Your task to perform on an android device: Open Youtube and go to the subscriptions tab Image 0: 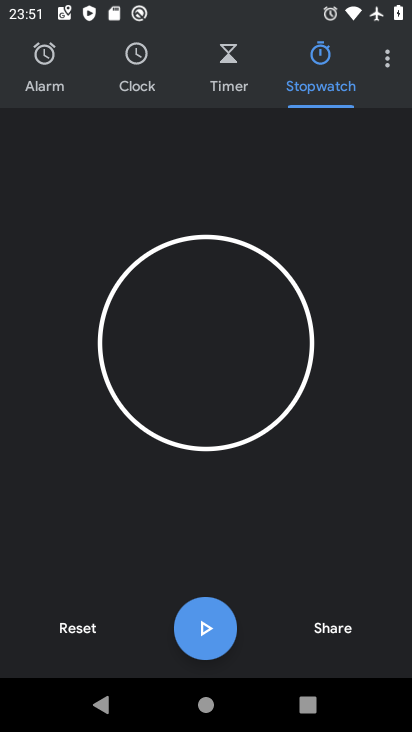
Step 0: press back button
Your task to perform on an android device: Open Youtube and go to the subscriptions tab Image 1: 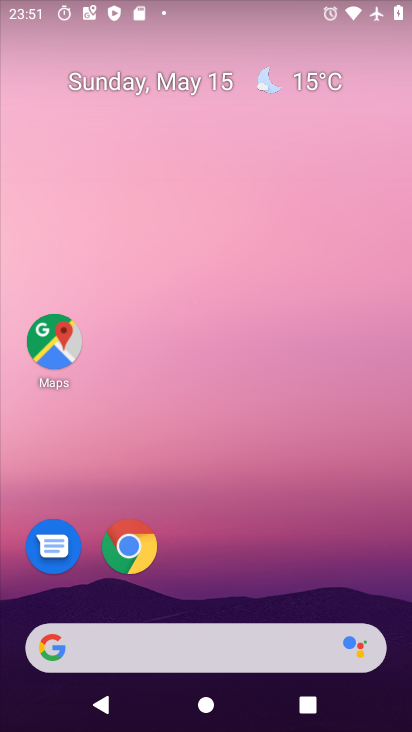
Step 1: drag from (228, 675) to (169, 48)
Your task to perform on an android device: Open Youtube and go to the subscriptions tab Image 2: 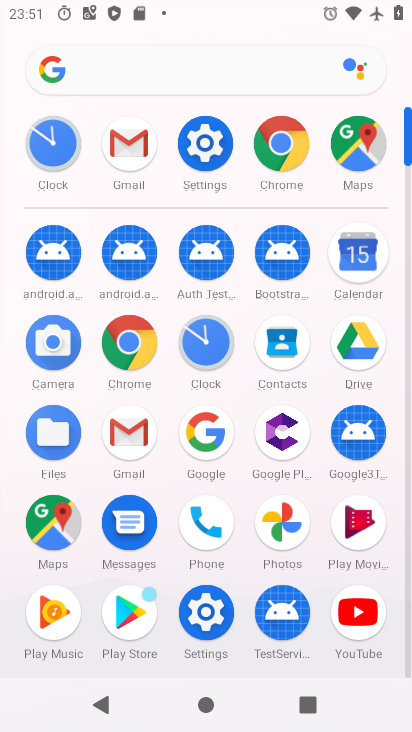
Step 2: click (344, 612)
Your task to perform on an android device: Open Youtube and go to the subscriptions tab Image 3: 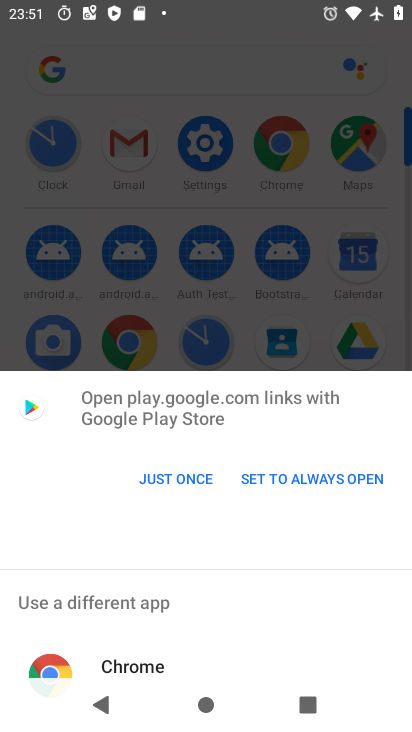
Step 3: task complete